Your task to perform on an android device: Go to privacy settings Image 0: 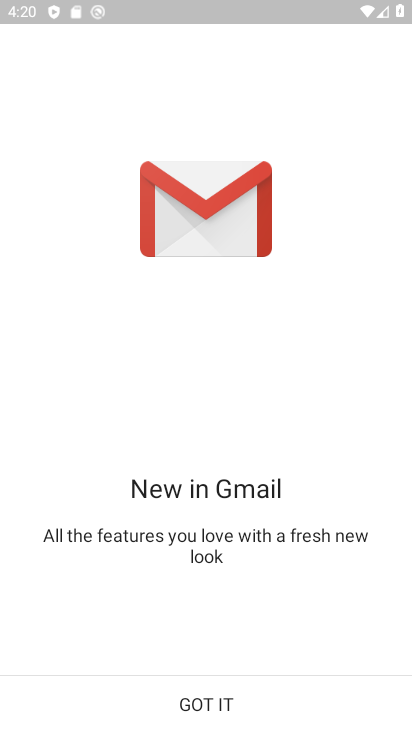
Step 0: click (207, 693)
Your task to perform on an android device: Go to privacy settings Image 1: 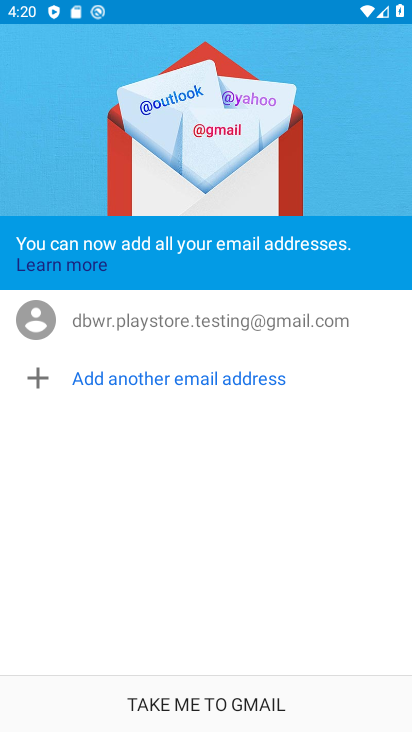
Step 1: click (212, 697)
Your task to perform on an android device: Go to privacy settings Image 2: 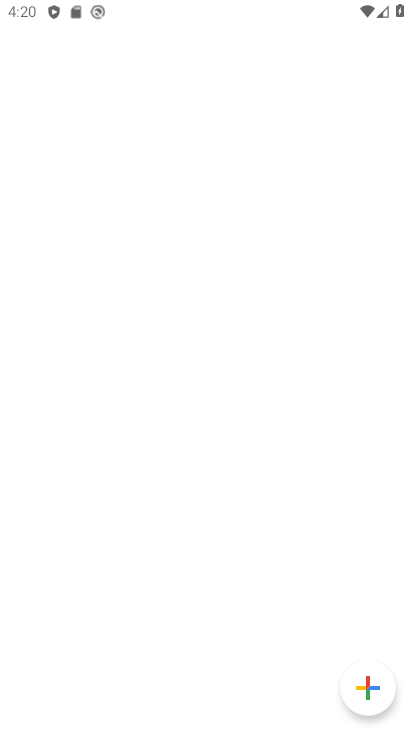
Step 2: press home button
Your task to perform on an android device: Go to privacy settings Image 3: 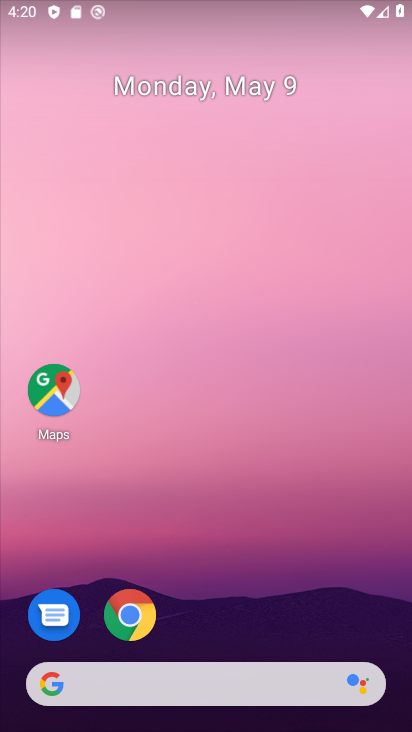
Step 3: drag from (207, 649) to (198, 228)
Your task to perform on an android device: Go to privacy settings Image 4: 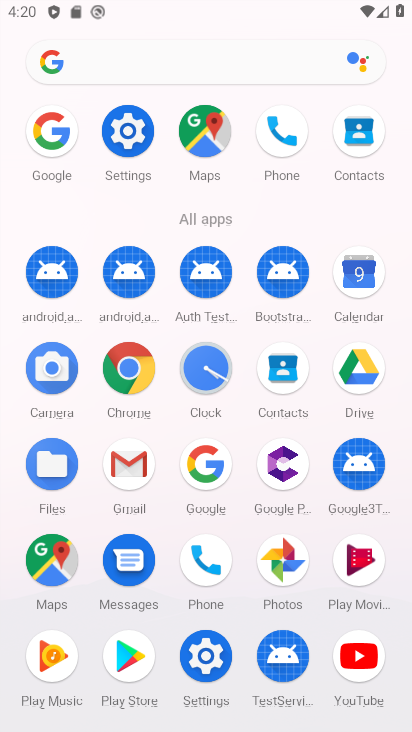
Step 4: click (130, 129)
Your task to perform on an android device: Go to privacy settings Image 5: 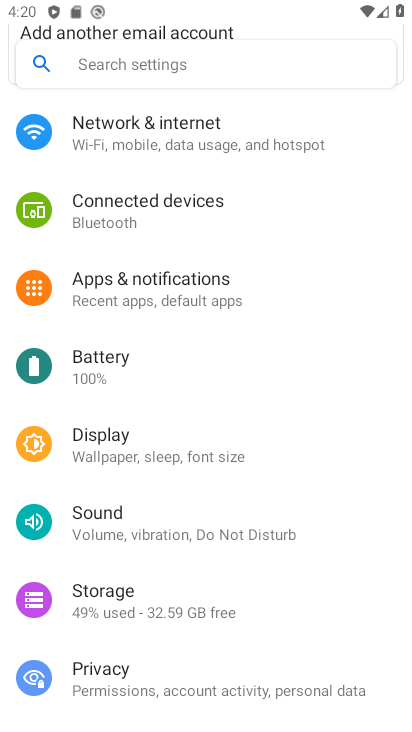
Step 5: click (131, 681)
Your task to perform on an android device: Go to privacy settings Image 6: 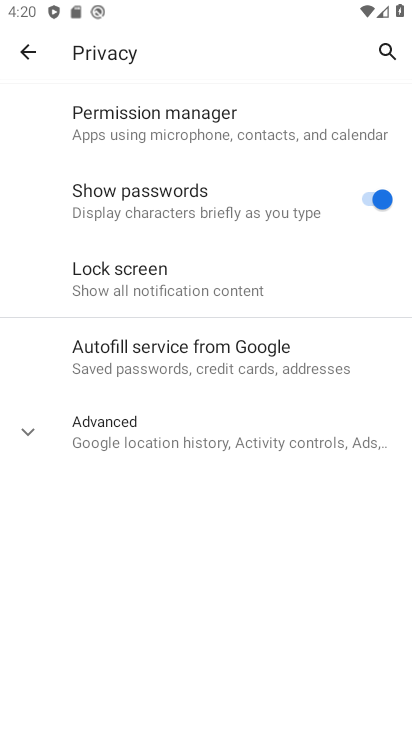
Step 6: click (77, 439)
Your task to perform on an android device: Go to privacy settings Image 7: 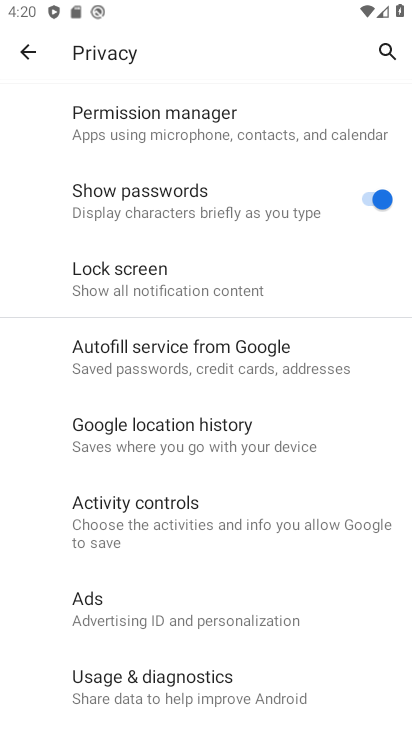
Step 7: task complete